Your task to perform on an android device: Show me recent news Image 0: 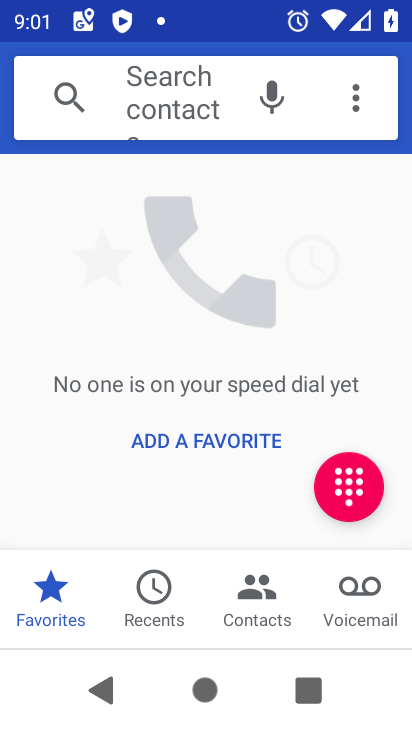
Step 0: press home button
Your task to perform on an android device: Show me recent news Image 1: 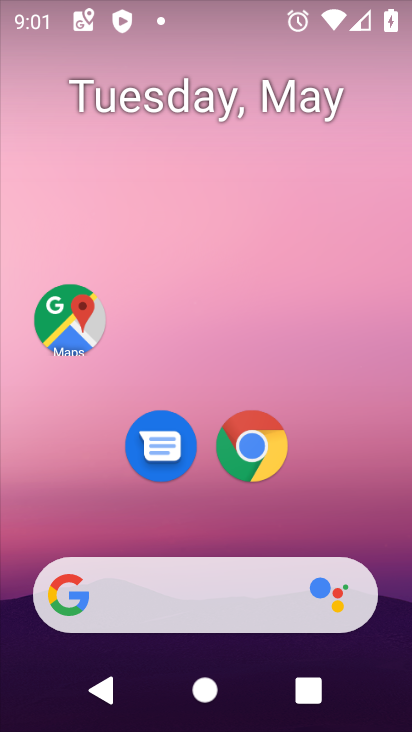
Step 1: click (128, 594)
Your task to perform on an android device: Show me recent news Image 2: 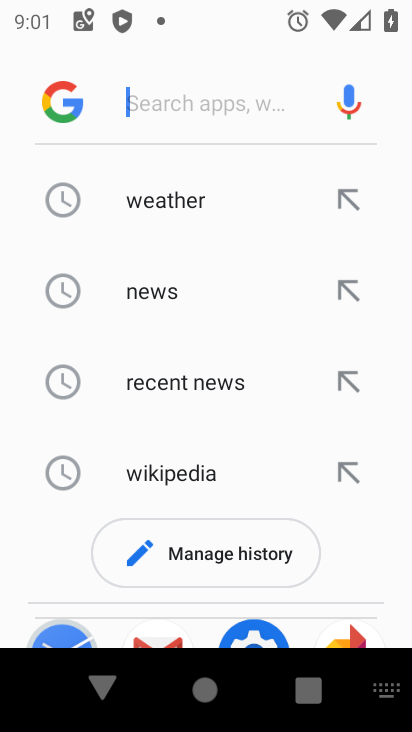
Step 2: click (181, 382)
Your task to perform on an android device: Show me recent news Image 3: 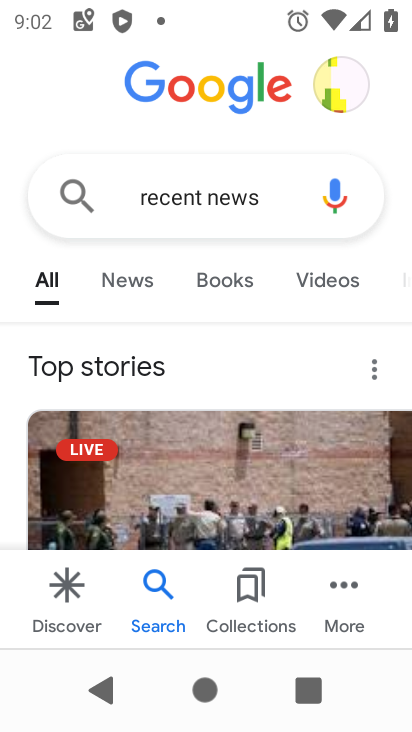
Step 3: drag from (162, 476) to (148, 174)
Your task to perform on an android device: Show me recent news Image 4: 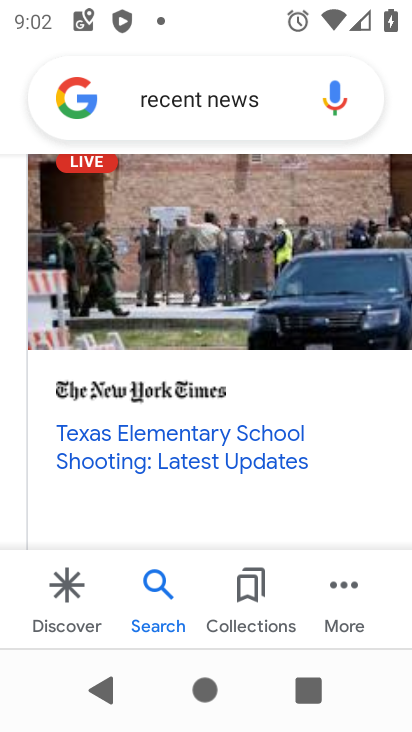
Step 4: drag from (198, 437) to (195, 130)
Your task to perform on an android device: Show me recent news Image 5: 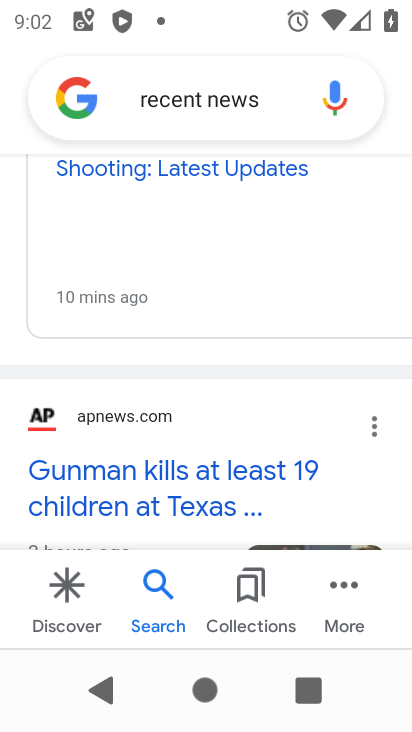
Step 5: drag from (192, 223) to (199, 470)
Your task to perform on an android device: Show me recent news Image 6: 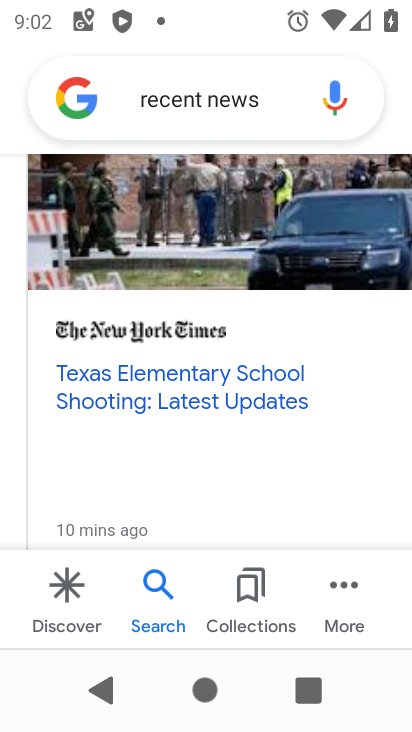
Step 6: click (204, 238)
Your task to perform on an android device: Show me recent news Image 7: 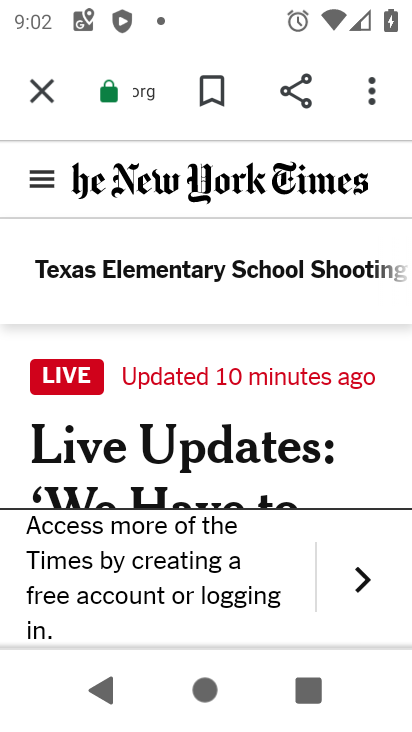
Step 7: task complete